Your task to perform on an android device: turn notification dots on Image 0: 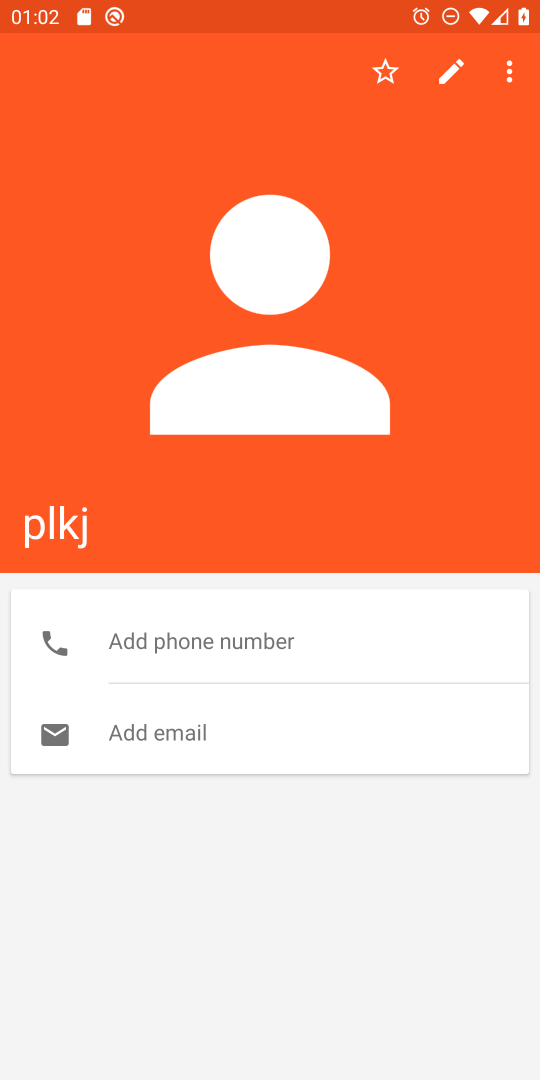
Step 0: press home button
Your task to perform on an android device: turn notification dots on Image 1: 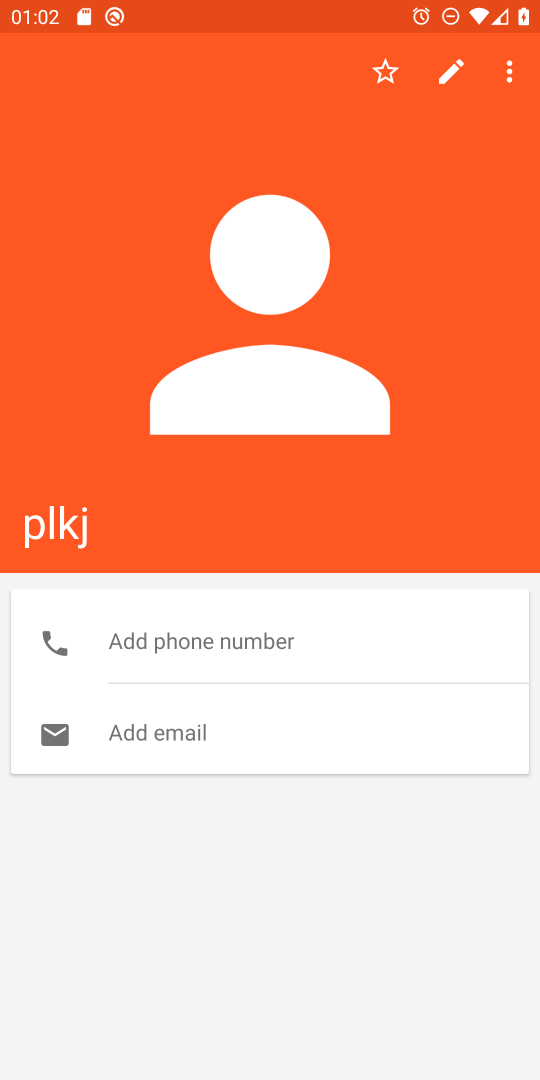
Step 1: press home button
Your task to perform on an android device: turn notification dots on Image 2: 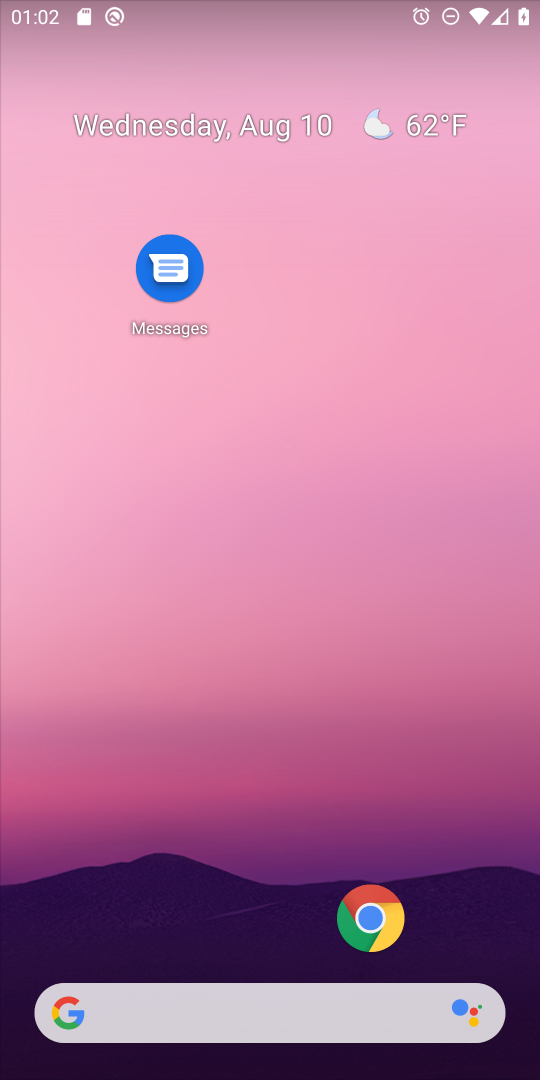
Step 2: drag from (266, 948) to (410, 202)
Your task to perform on an android device: turn notification dots on Image 3: 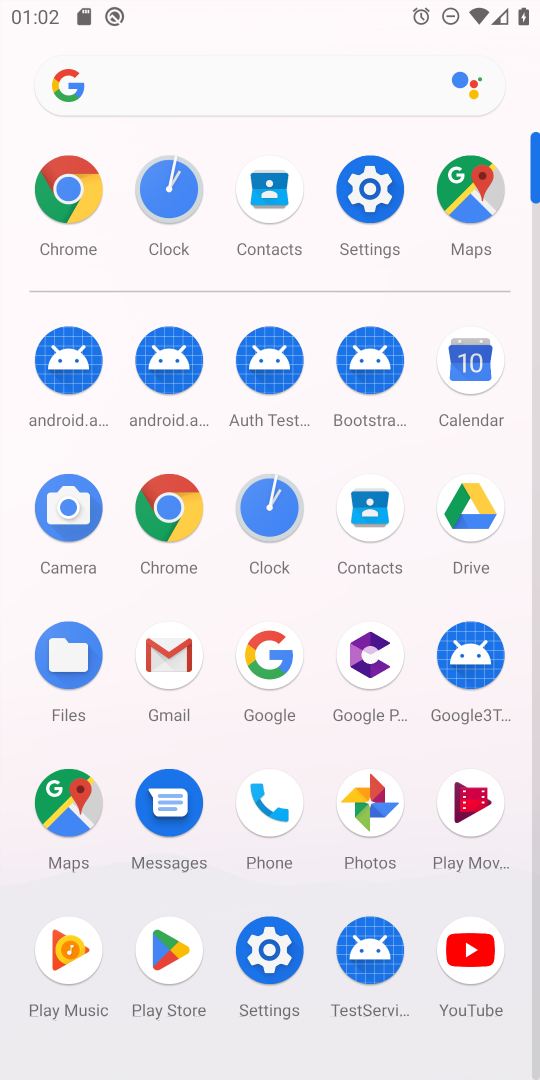
Step 3: click (277, 940)
Your task to perform on an android device: turn notification dots on Image 4: 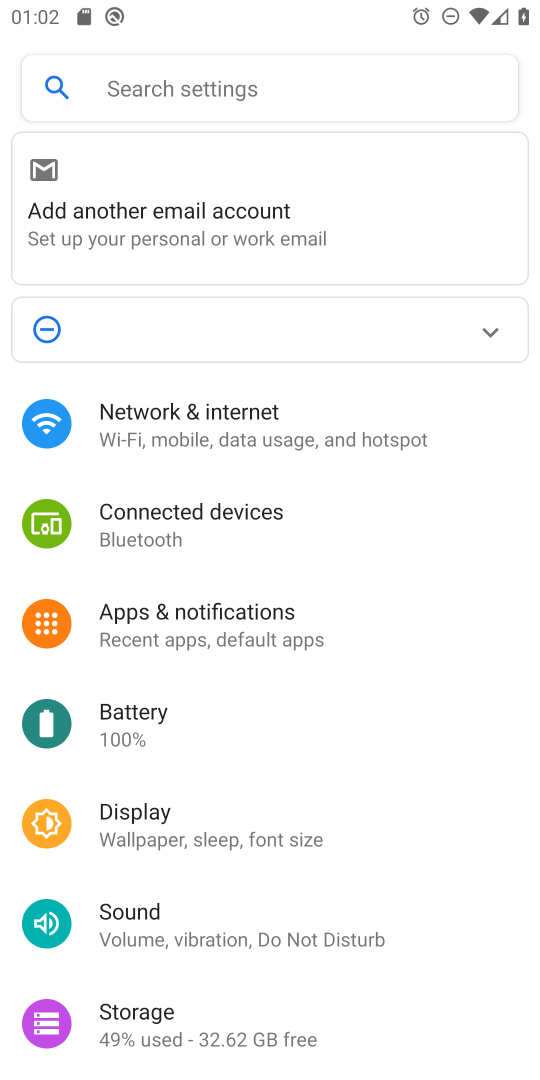
Step 4: click (258, 634)
Your task to perform on an android device: turn notification dots on Image 5: 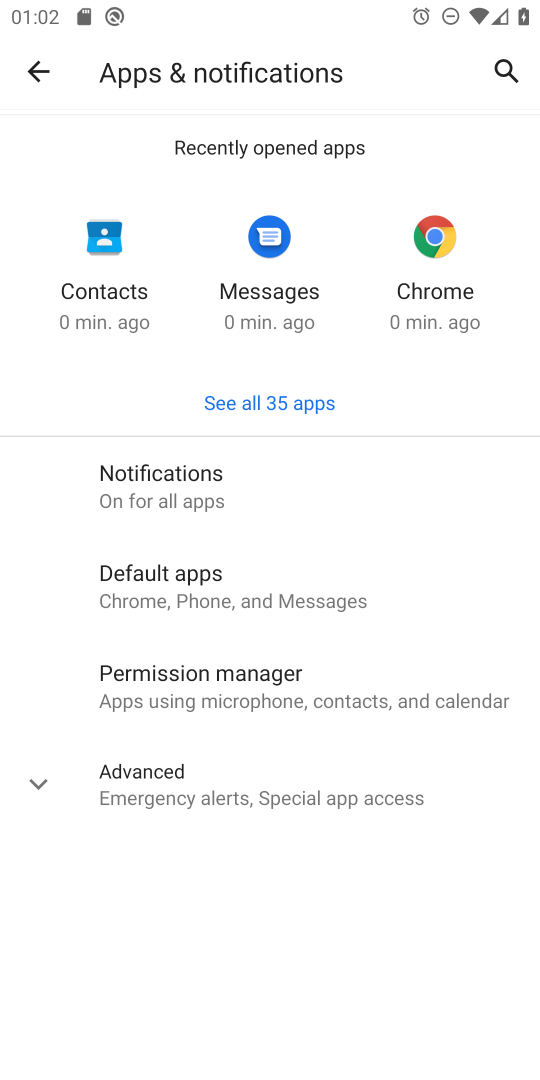
Step 5: click (136, 482)
Your task to perform on an android device: turn notification dots on Image 6: 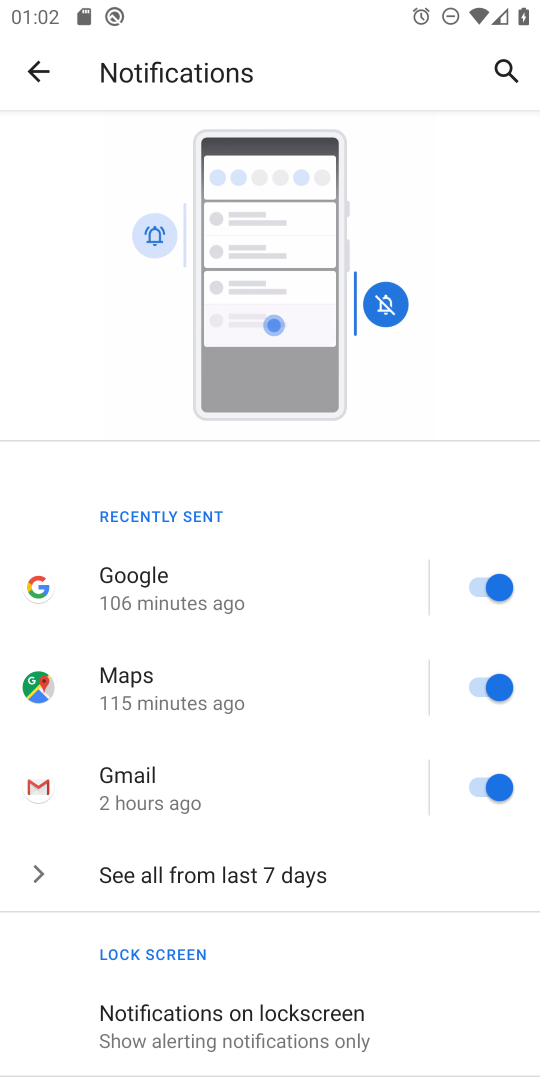
Step 6: drag from (321, 951) to (368, 207)
Your task to perform on an android device: turn notification dots on Image 7: 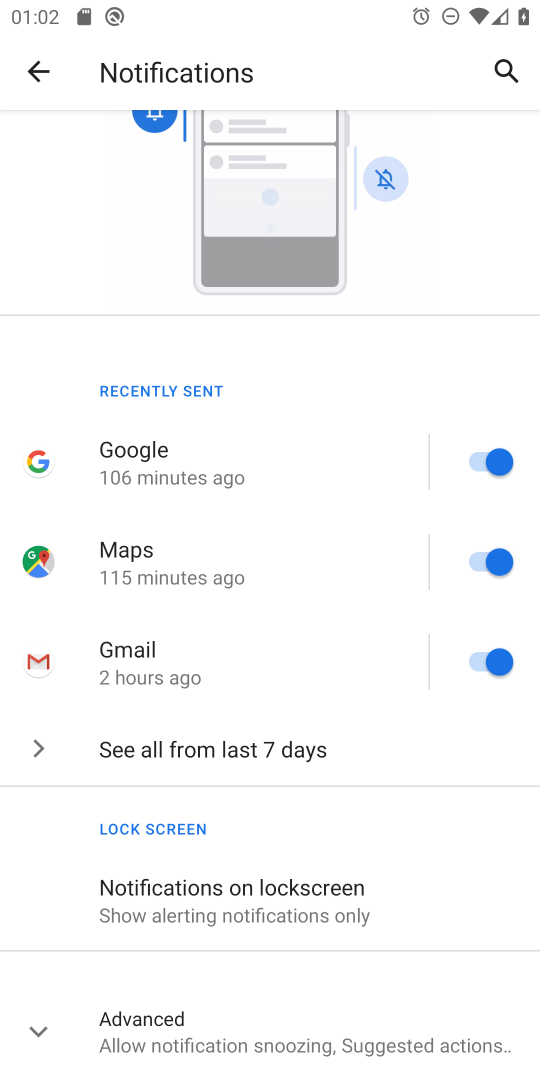
Step 7: click (258, 1027)
Your task to perform on an android device: turn notification dots on Image 8: 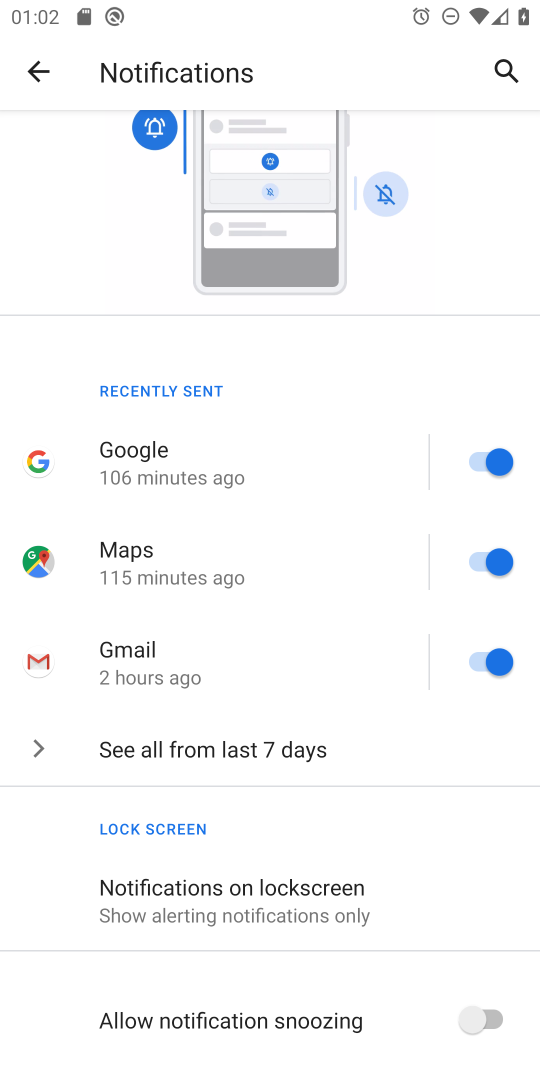
Step 8: task complete